Your task to perform on an android device: change the clock display to show seconds Image 0: 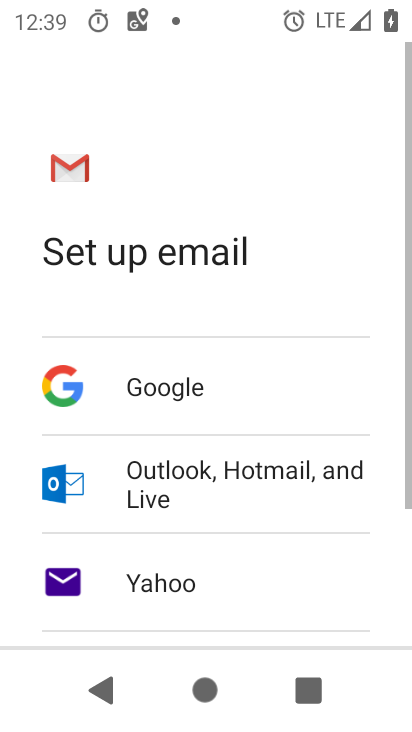
Step 0: press home button
Your task to perform on an android device: change the clock display to show seconds Image 1: 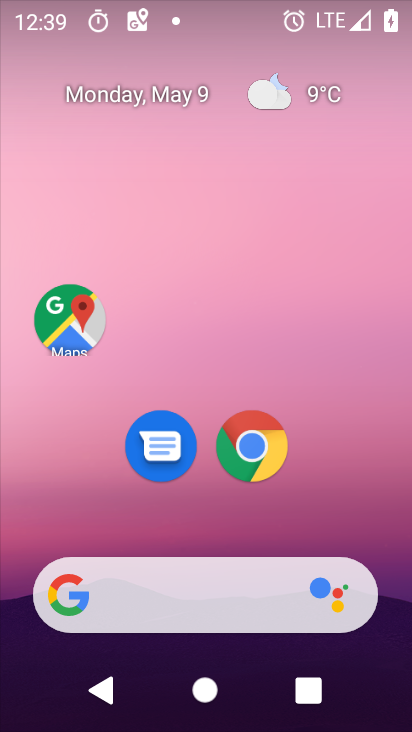
Step 1: drag from (395, 502) to (385, 2)
Your task to perform on an android device: change the clock display to show seconds Image 2: 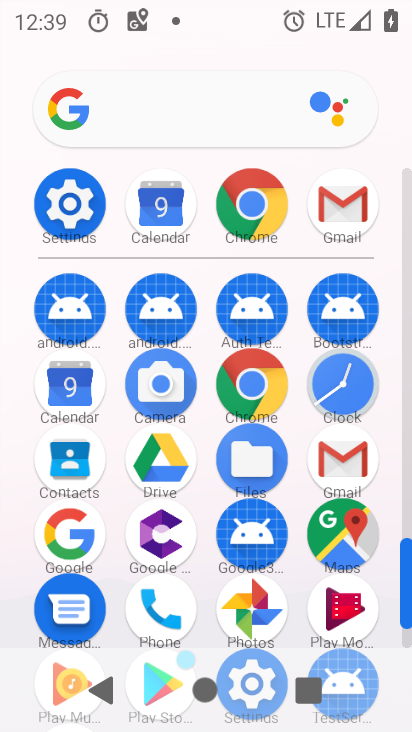
Step 2: click (346, 390)
Your task to perform on an android device: change the clock display to show seconds Image 3: 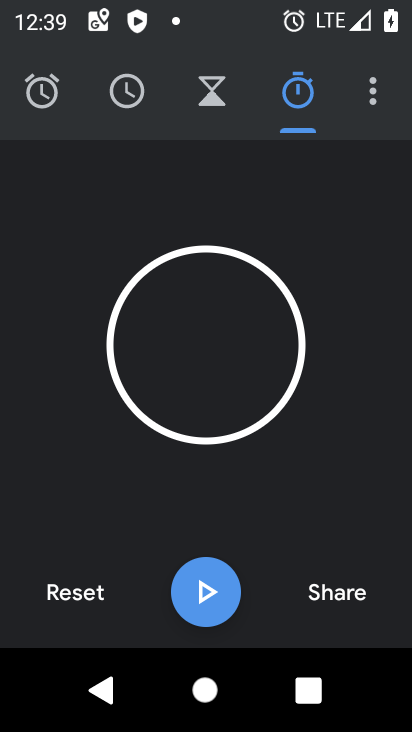
Step 3: click (381, 97)
Your task to perform on an android device: change the clock display to show seconds Image 4: 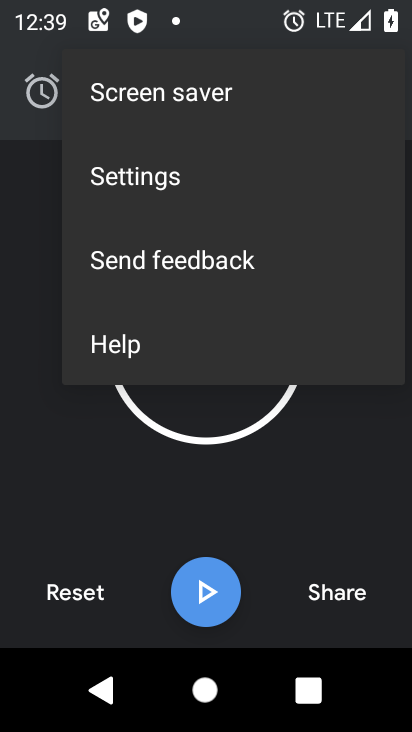
Step 4: click (148, 188)
Your task to perform on an android device: change the clock display to show seconds Image 5: 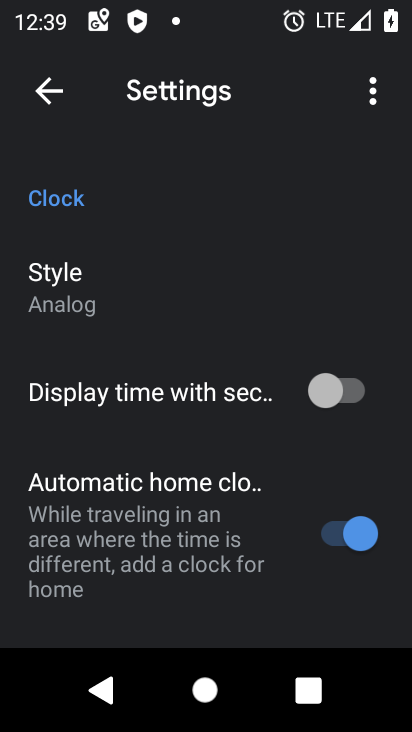
Step 5: click (323, 399)
Your task to perform on an android device: change the clock display to show seconds Image 6: 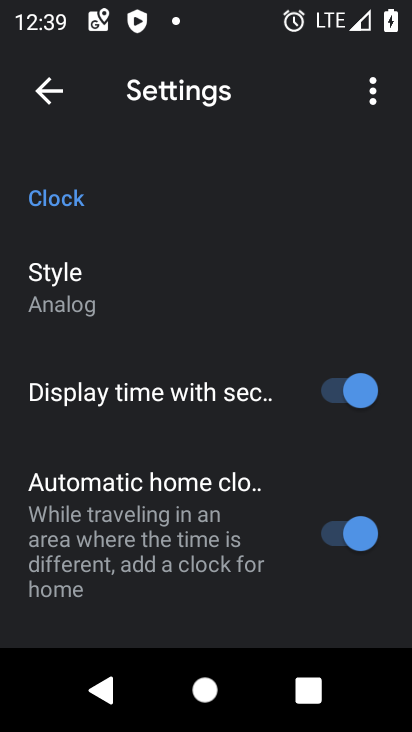
Step 6: task complete